Your task to perform on an android device: Open CNN.com Image 0: 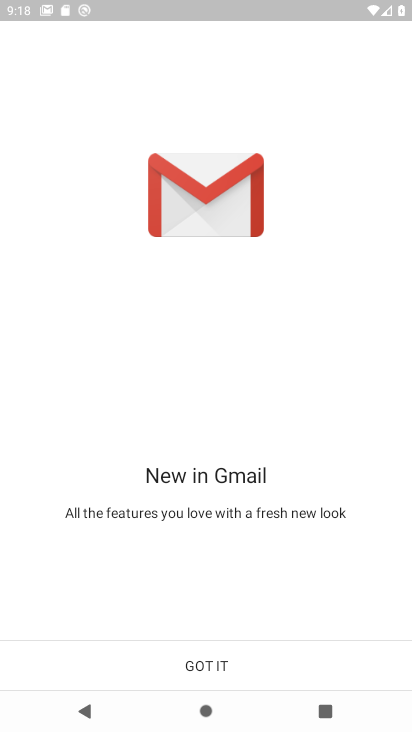
Step 0: click (202, 661)
Your task to perform on an android device: Open CNN.com Image 1: 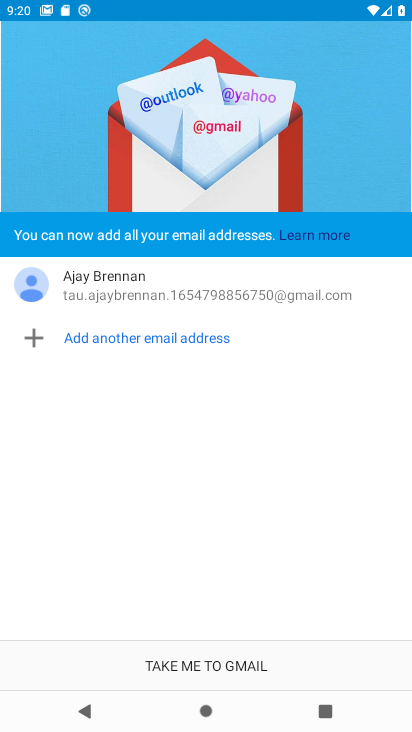
Step 1: press home button
Your task to perform on an android device: Open CNN.com Image 2: 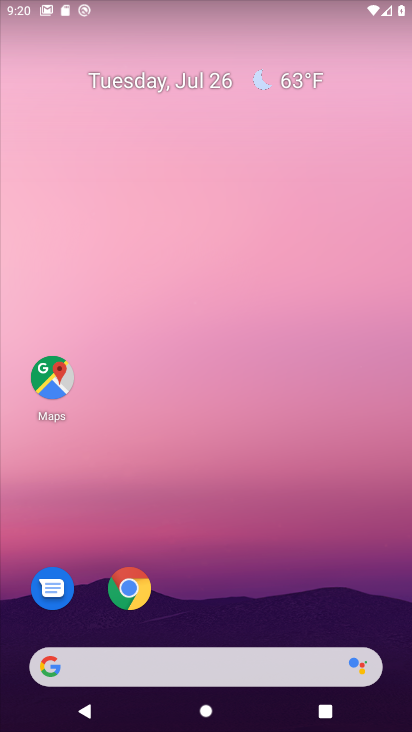
Step 2: click (136, 587)
Your task to perform on an android device: Open CNN.com Image 3: 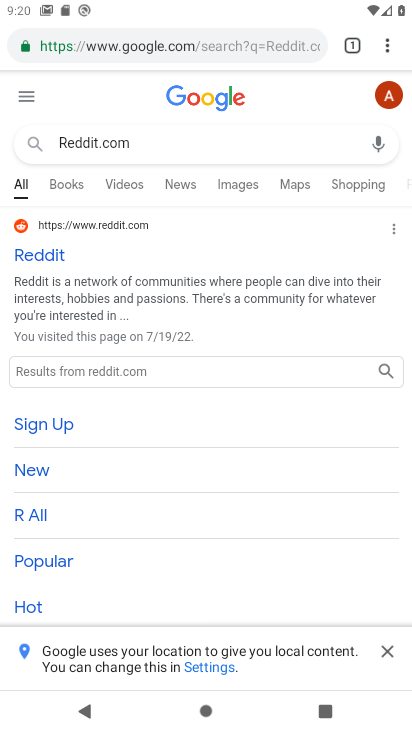
Step 3: click (228, 38)
Your task to perform on an android device: Open CNN.com Image 4: 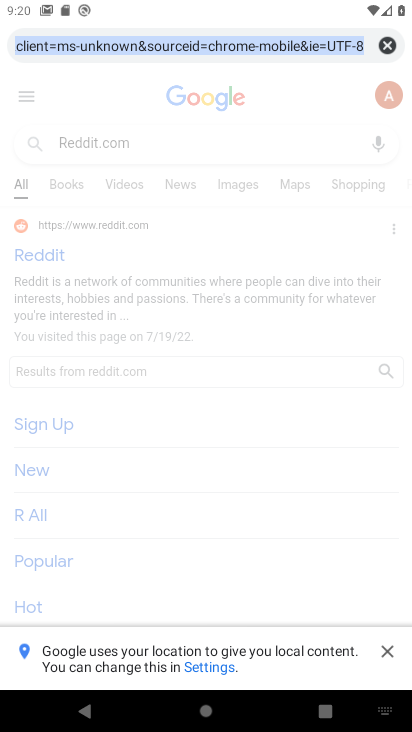
Step 4: click (388, 45)
Your task to perform on an android device: Open CNN.com Image 5: 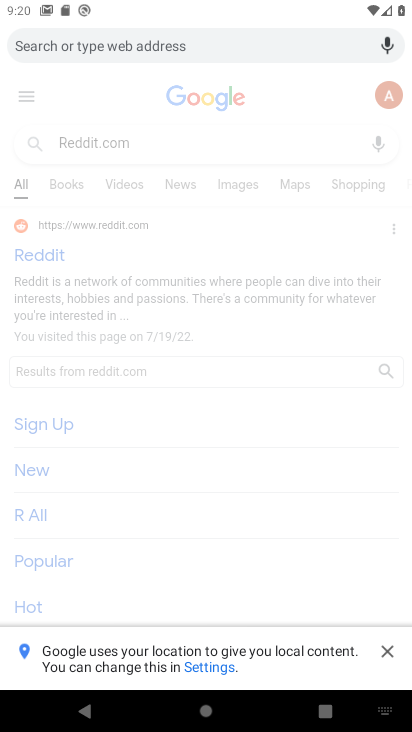
Step 5: type "CNN.com"
Your task to perform on an android device: Open CNN.com Image 6: 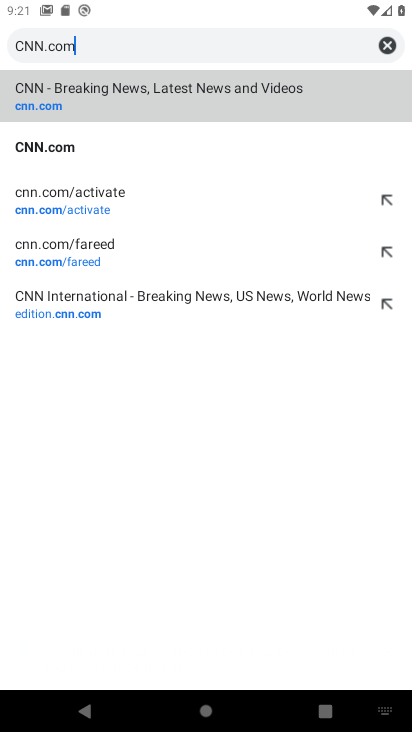
Step 6: click (63, 142)
Your task to perform on an android device: Open CNN.com Image 7: 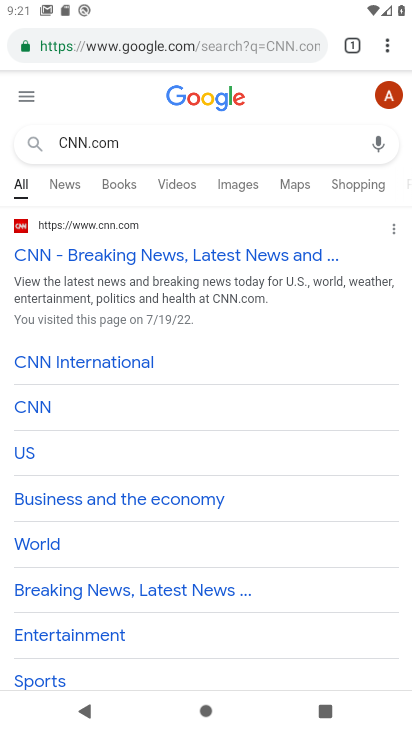
Step 7: task complete